Your task to perform on an android device: Set the phone to "Do not disturb". Image 0: 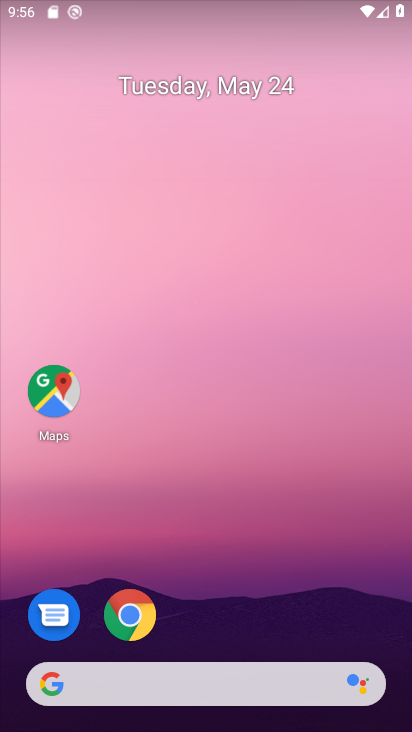
Step 0: drag from (370, 631) to (378, 276)
Your task to perform on an android device: Set the phone to "Do not disturb". Image 1: 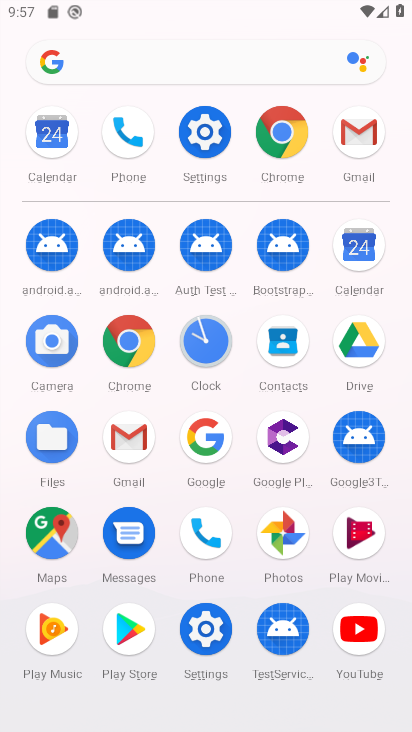
Step 1: click (206, 636)
Your task to perform on an android device: Set the phone to "Do not disturb". Image 2: 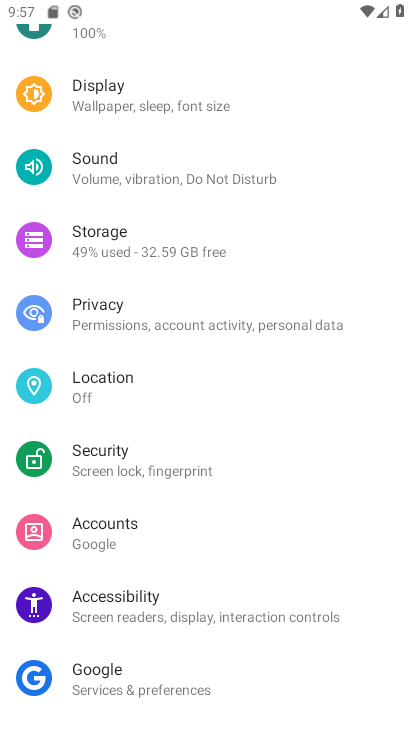
Step 2: drag from (307, 392) to (298, 571)
Your task to perform on an android device: Set the phone to "Do not disturb". Image 3: 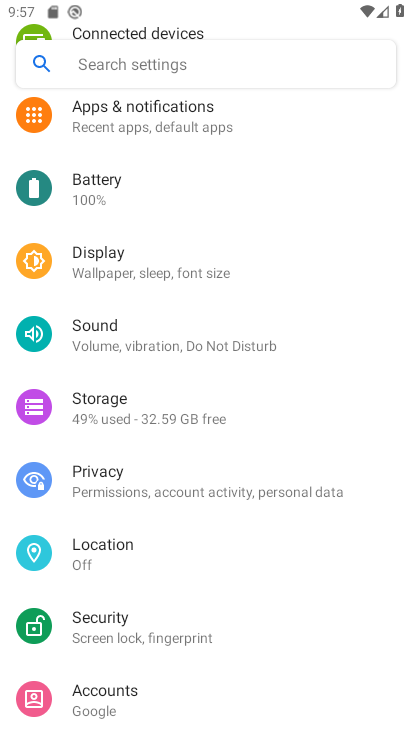
Step 3: drag from (345, 294) to (338, 496)
Your task to perform on an android device: Set the phone to "Do not disturb". Image 4: 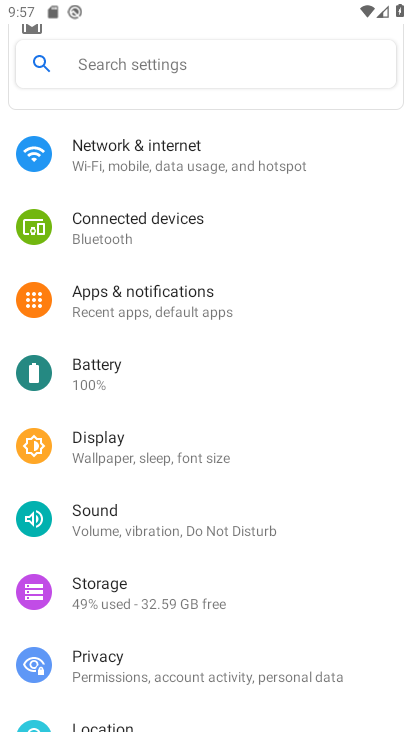
Step 4: drag from (346, 318) to (345, 477)
Your task to perform on an android device: Set the phone to "Do not disturb". Image 5: 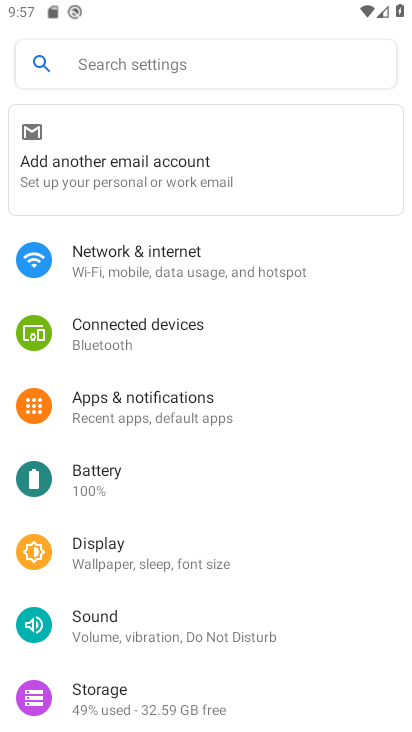
Step 5: drag from (337, 299) to (325, 437)
Your task to perform on an android device: Set the phone to "Do not disturb". Image 6: 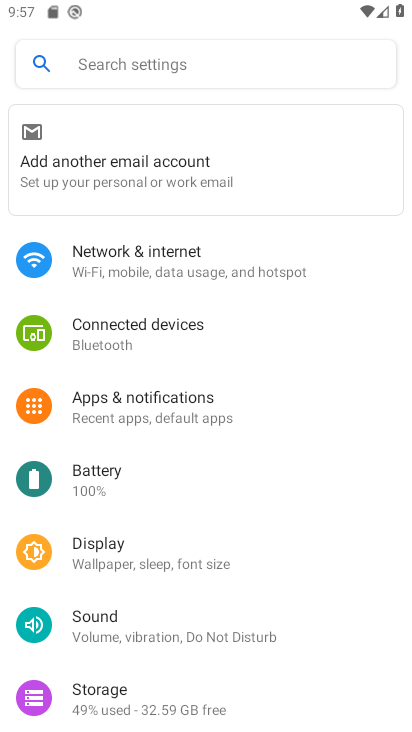
Step 6: drag from (330, 575) to (345, 413)
Your task to perform on an android device: Set the phone to "Do not disturb". Image 7: 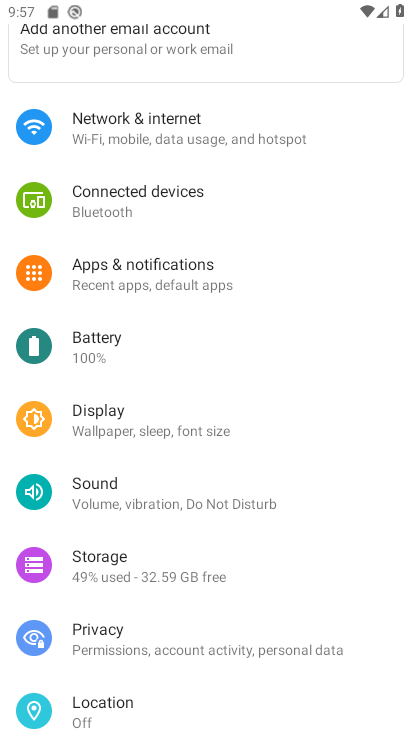
Step 7: drag from (345, 555) to (344, 403)
Your task to perform on an android device: Set the phone to "Do not disturb". Image 8: 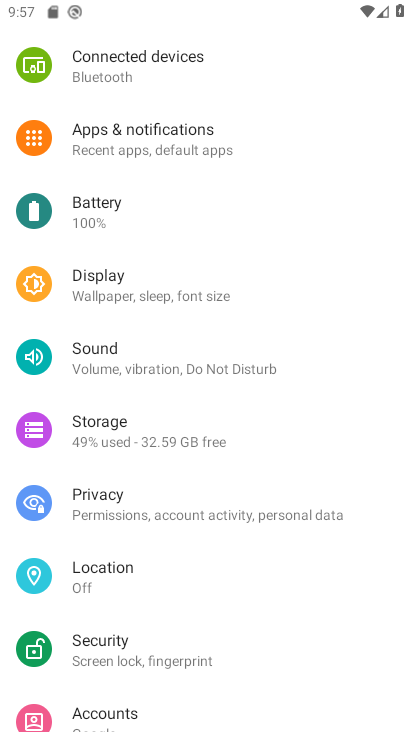
Step 8: click (258, 358)
Your task to perform on an android device: Set the phone to "Do not disturb". Image 9: 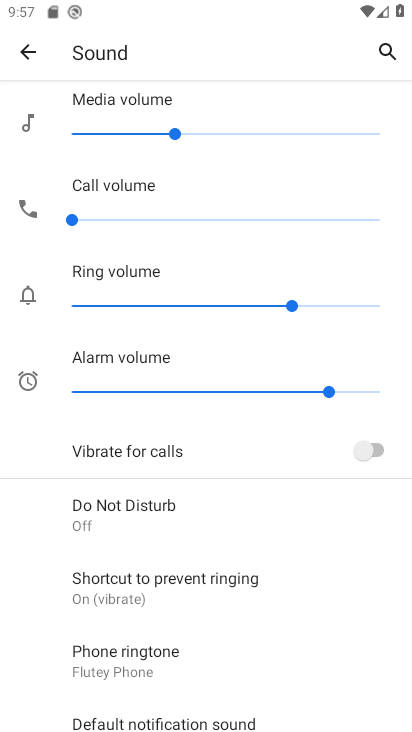
Step 9: click (141, 529)
Your task to perform on an android device: Set the phone to "Do not disturb". Image 10: 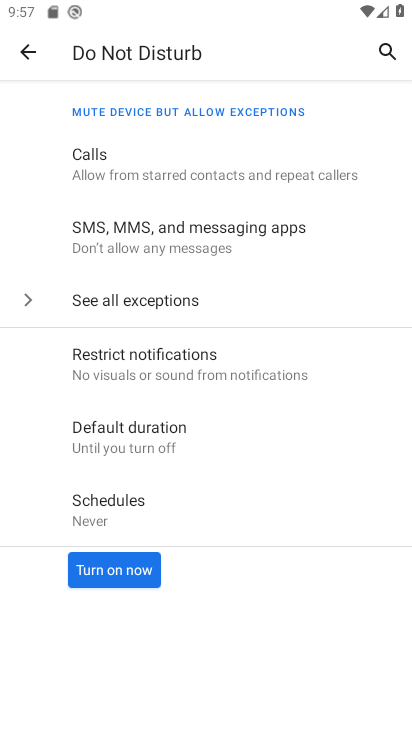
Step 10: click (127, 573)
Your task to perform on an android device: Set the phone to "Do not disturb". Image 11: 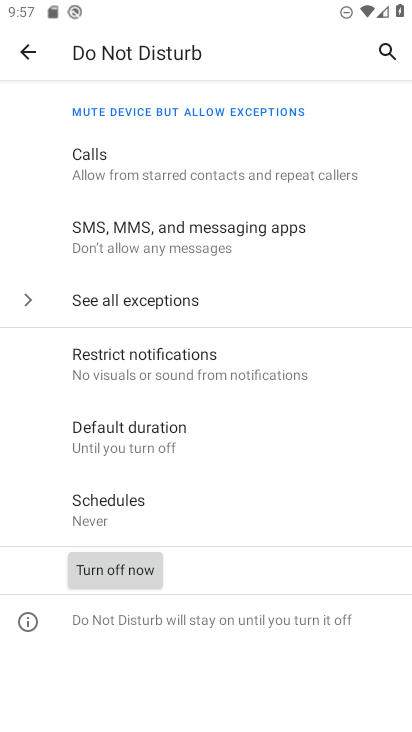
Step 11: task complete